Your task to perform on an android device: Empty the shopping cart on ebay. Add "beats solo 3" to the cart on ebay, then select checkout. Image 0: 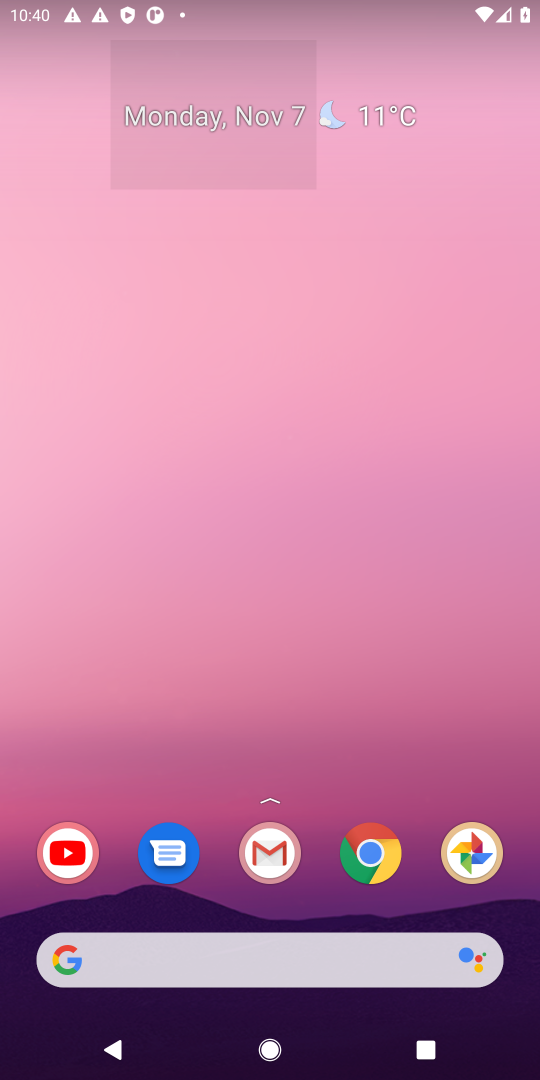
Step 0: click (359, 969)
Your task to perform on an android device: Empty the shopping cart on ebay. Add "beats solo 3" to the cart on ebay, then select checkout. Image 1: 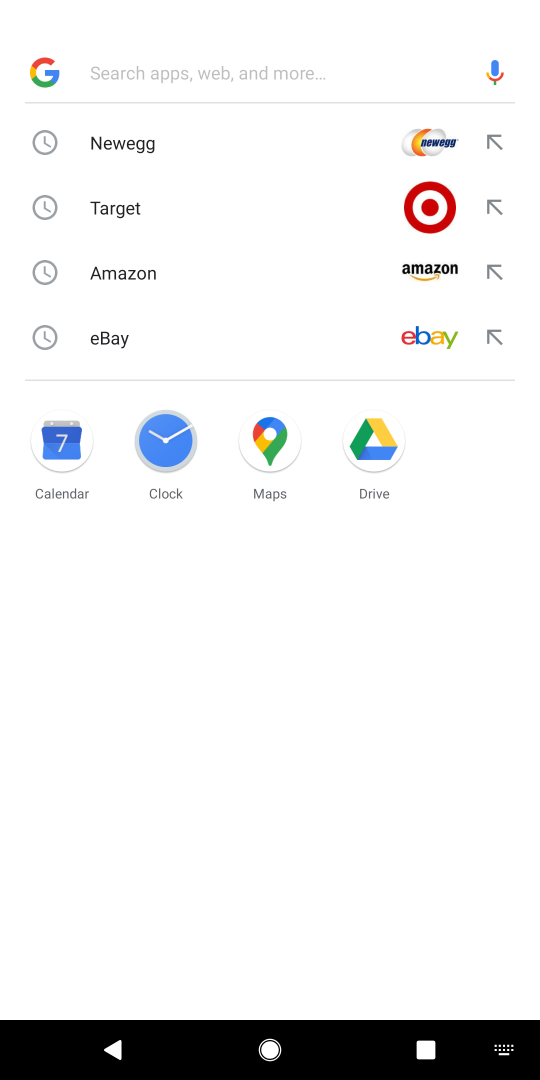
Step 1: click (186, 363)
Your task to perform on an android device: Empty the shopping cart on ebay. Add "beats solo 3" to the cart on ebay, then select checkout. Image 2: 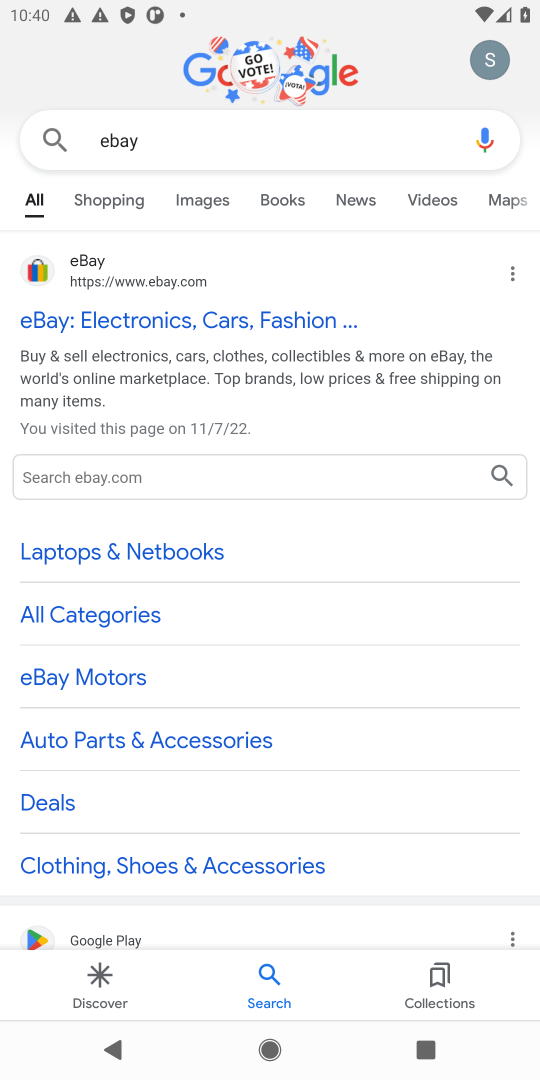
Step 2: click (171, 336)
Your task to perform on an android device: Empty the shopping cart on ebay. Add "beats solo 3" to the cart on ebay, then select checkout. Image 3: 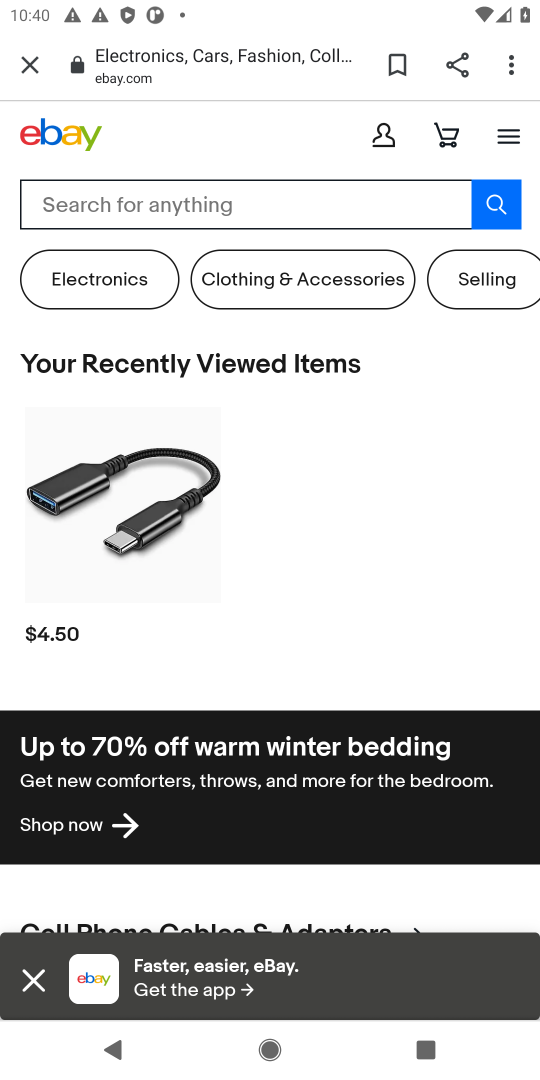
Step 3: task complete